Your task to perform on an android device: set the timer Image 0: 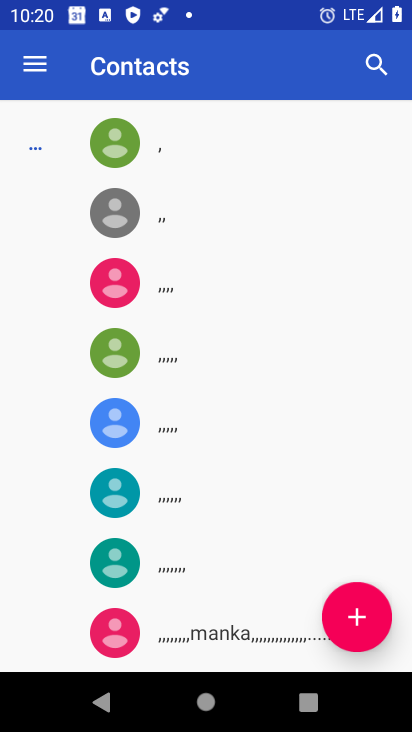
Step 0: press home button
Your task to perform on an android device: set the timer Image 1: 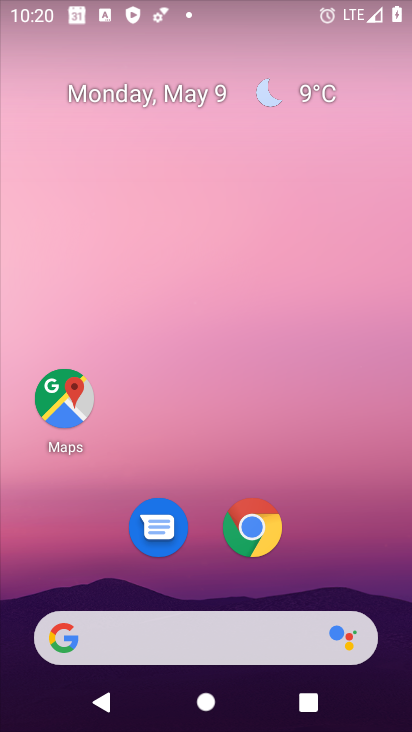
Step 1: drag from (387, 593) to (344, 74)
Your task to perform on an android device: set the timer Image 2: 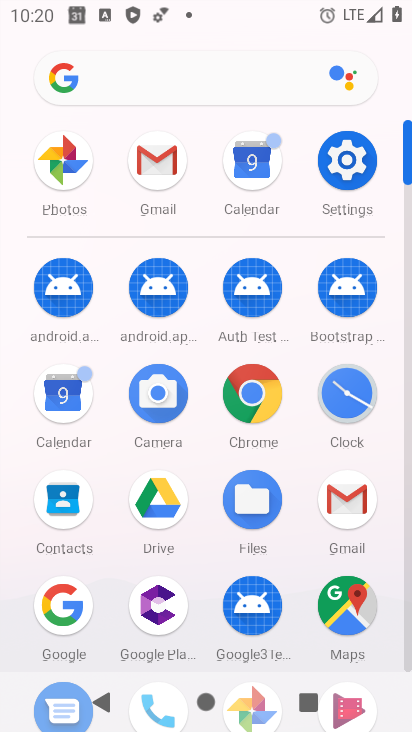
Step 2: click (344, 392)
Your task to perform on an android device: set the timer Image 3: 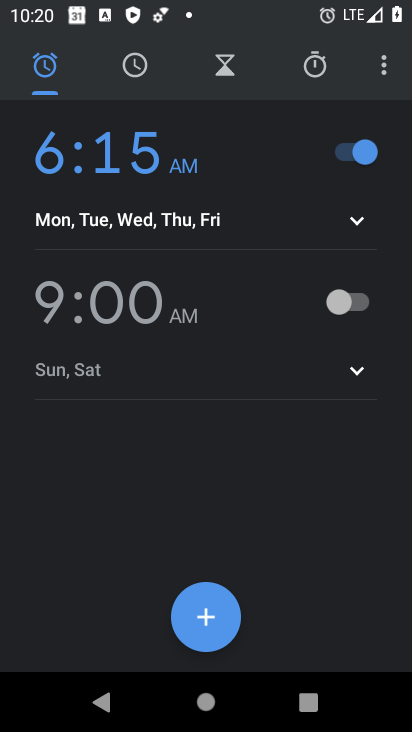
Step 3: click (222, 65)
Your task to perform on an android device: set the timer Image 4: 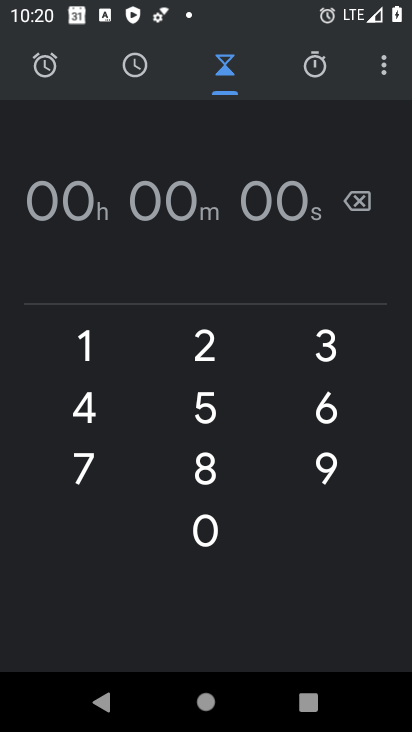
Step 4: click (92, 344)
Your task to perform on an android device: set the timer Image 5: 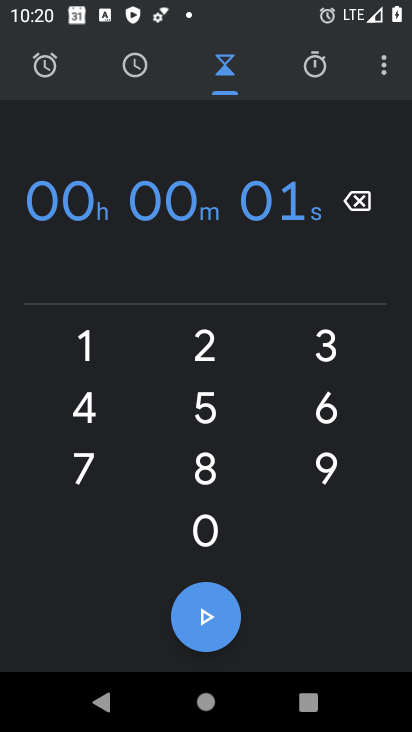
Step 5: click (330, 350)
Your task to perform on an android device: set the timer Image 6: 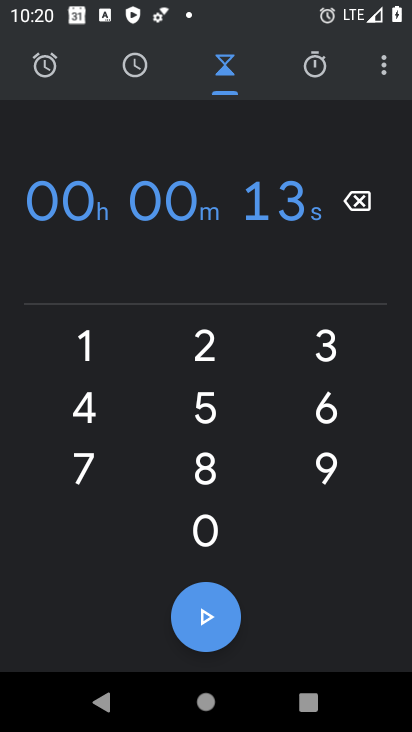
Step 6: click (196, 534)
Your task to perform on an android device: set the timer Image 7: 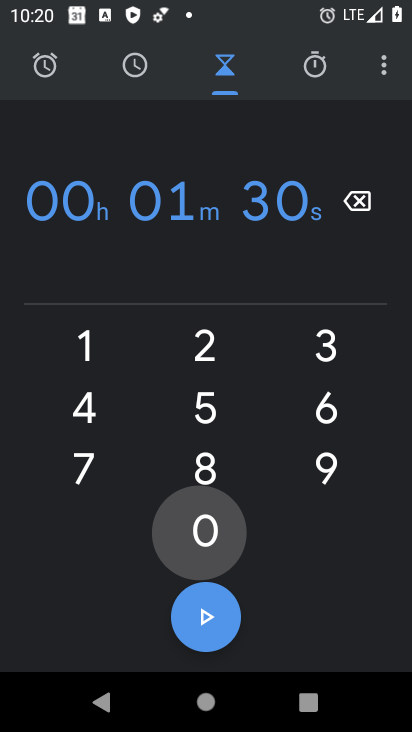
Step 7: click (196, 534)
Your task to perform on an android device: set the timer Image 8: 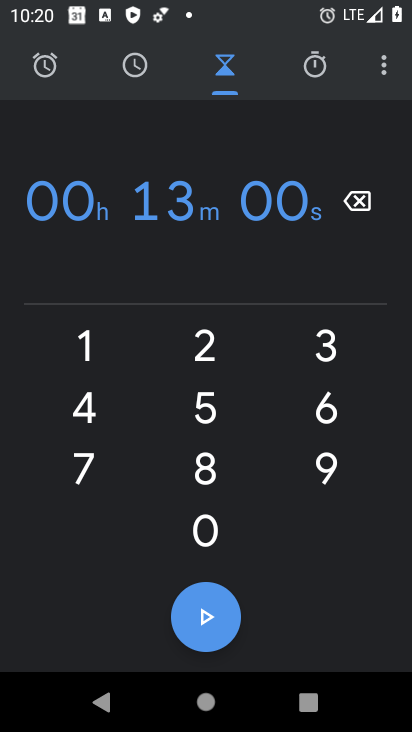
Step 8: click (196, 534)
Your task to perform on an android device: set the timer Image 9: 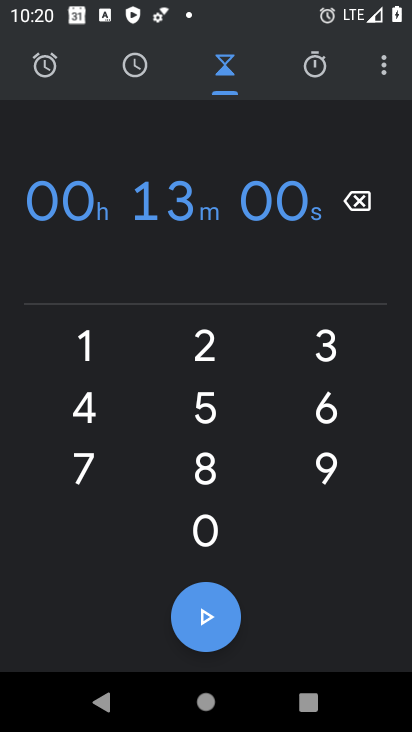
Step 9: click (196, 534)
Your task to perform on an android device: set the timer Image 10: 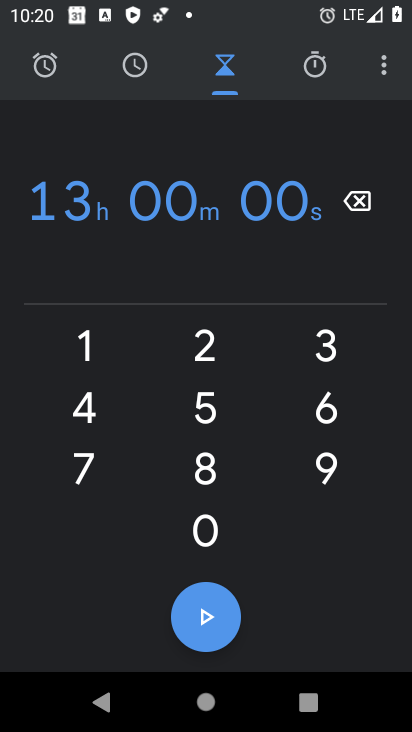
Step 10: task complete